Your task to perform on an android device: change your default location settings in chrome Image 0: 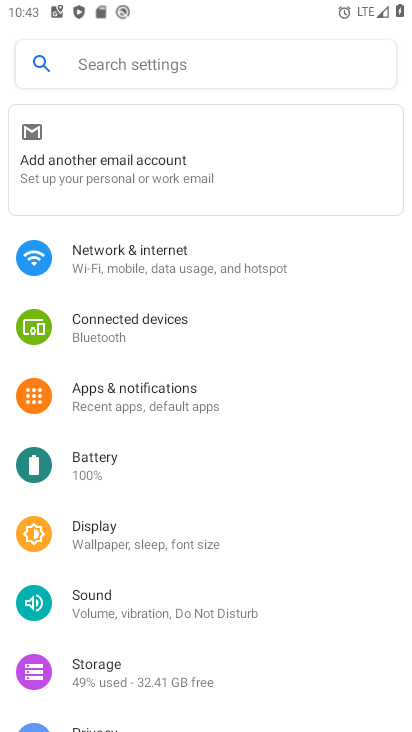
Step 0: press home button
Your task to perform on an android device: change your default location settings in chrome Image 1: 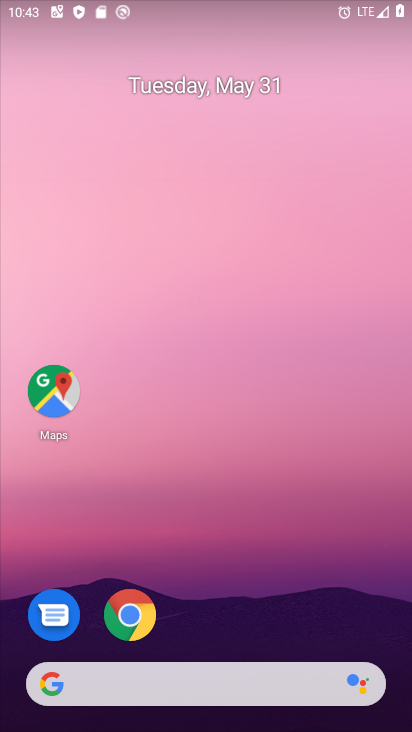
Step 1: drag from (337, 507) to (366, 90)
Your task to perform on an android device: change your default location settings in chrome Image 2: 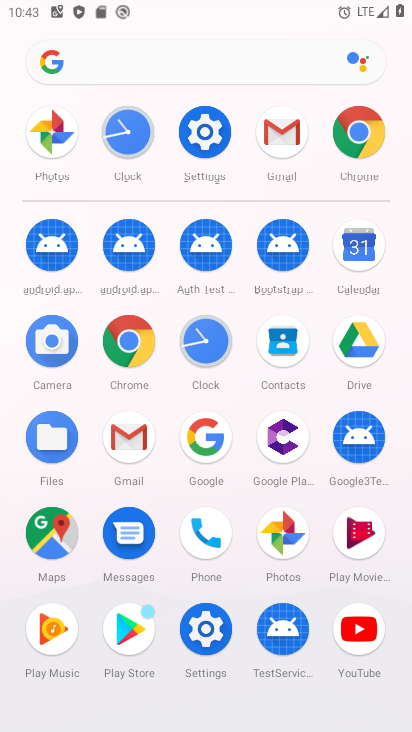
Step 2: click (361, 116)
Your task to perform on an android device: change your default location settings in chrome Image 3: 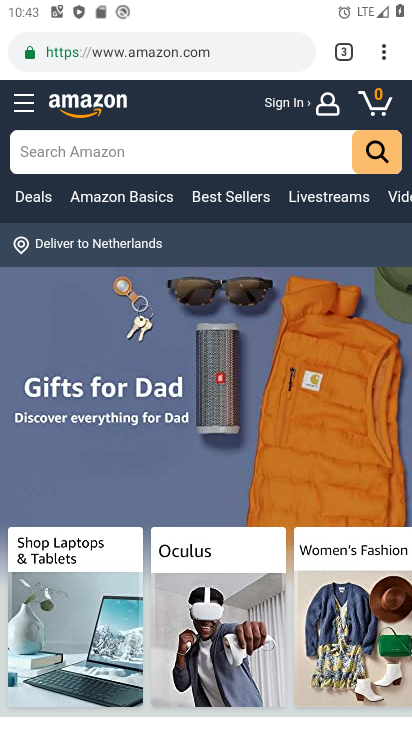
Step 3: drag from (384, 51) to (190, 632)
Your task to perform on an android device: change your default location settings in chrome Image 4: 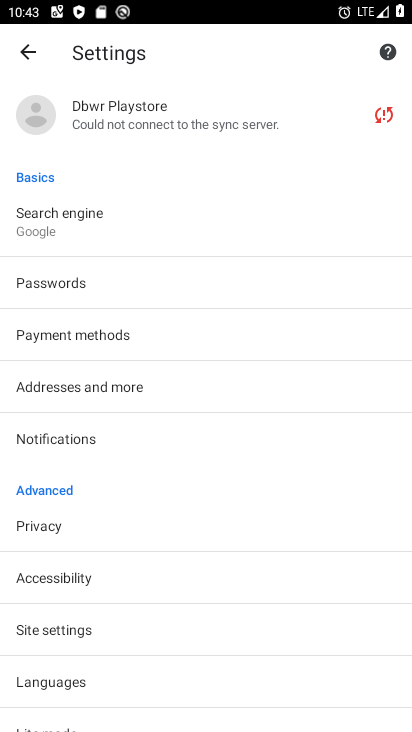
Step 4: drag from (105, 644) to (210, 178)
Your task to perform on an android device: change your default location settings in chrome Image 5: 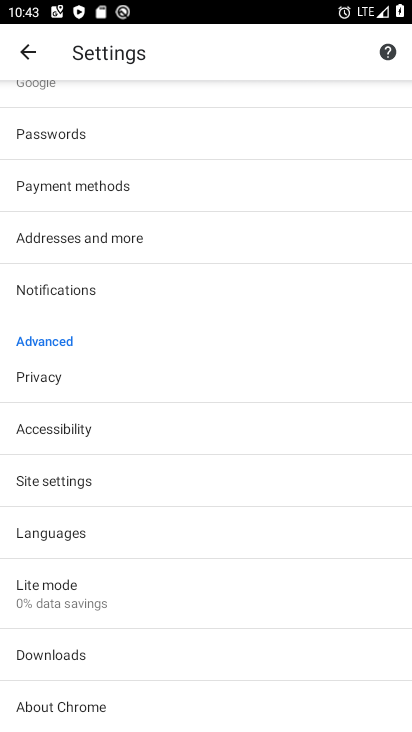
Step 5: drag from (216, 623) to (285, 187)
Your task to perform on an android device: change your default location settings in chrome Image 6: 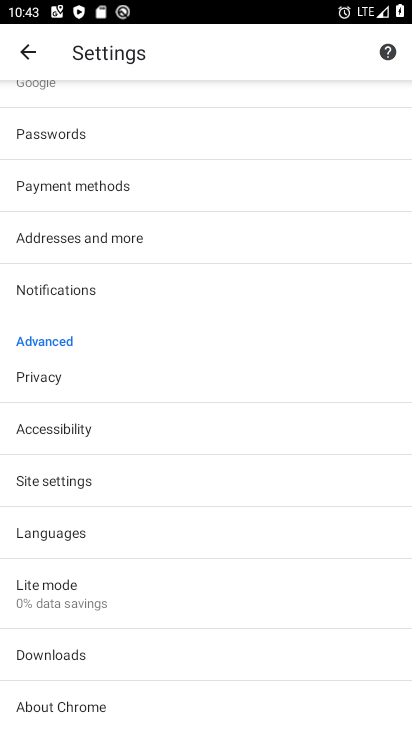
Step 6: drag from (219, 119) to (200, 675)
Your task to perform on an android device: change your default location settings in chrome Image 7: 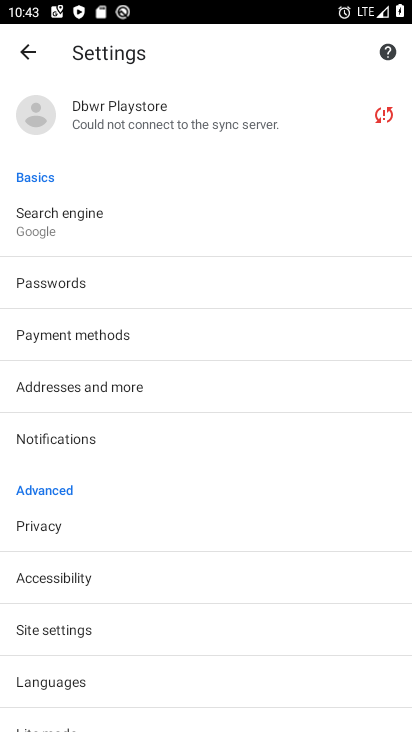
Step 7: drag from (200, 675) to (265, 111)
Your task to perform on an android device: change your default location settings in chrome Image 8: 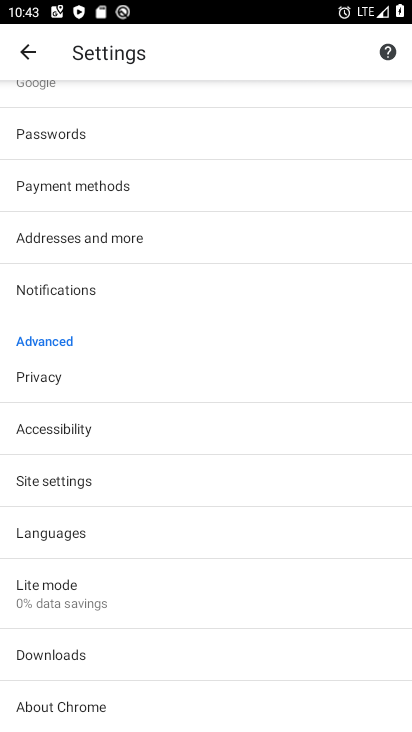
Step 8: click (136, 491)
Your task to perform on an android device: change your default location settings in chrome Image 9: 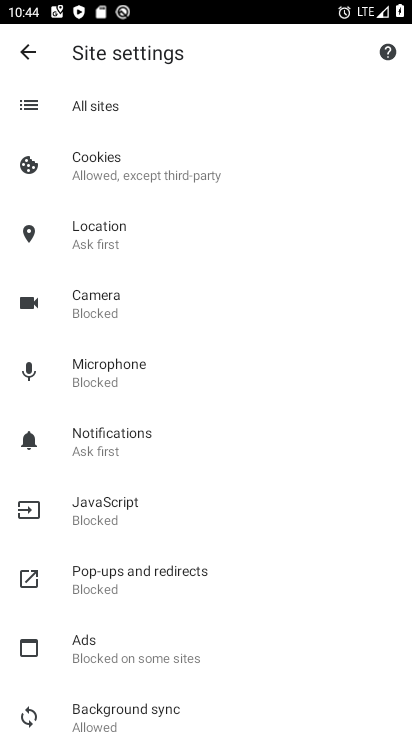
Step 9: click (104, 233)
Your task to perform on an android device: change your default location settings in chrome Image 10: 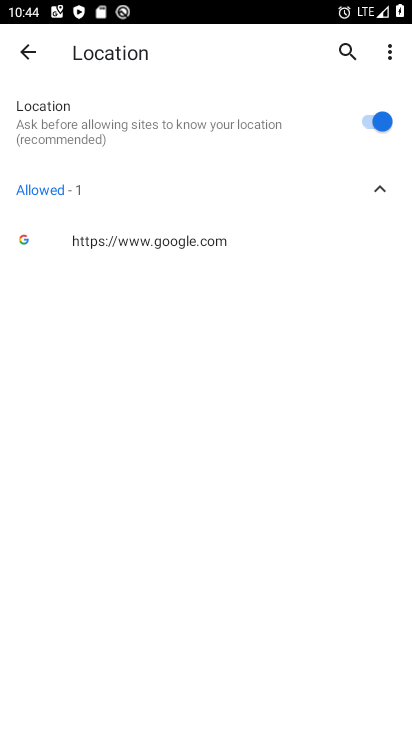
Step 10: click (379, 114)
Your task to perform on an android device: change your default location settings in chrome Image 11: 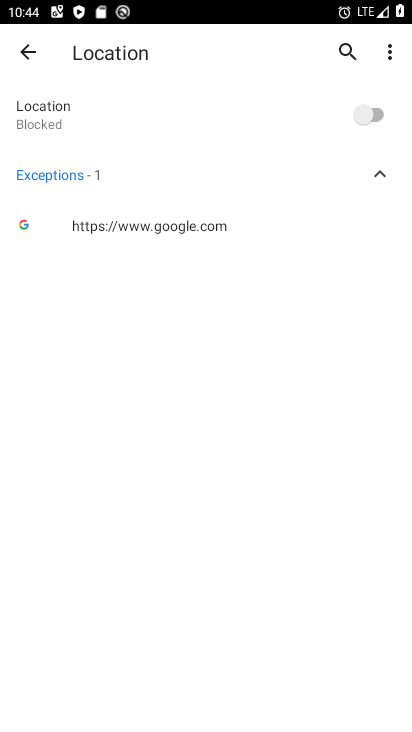
Step 11: task complete